Your task to perform on an android device: turn off translation in the chrome app Image 0: 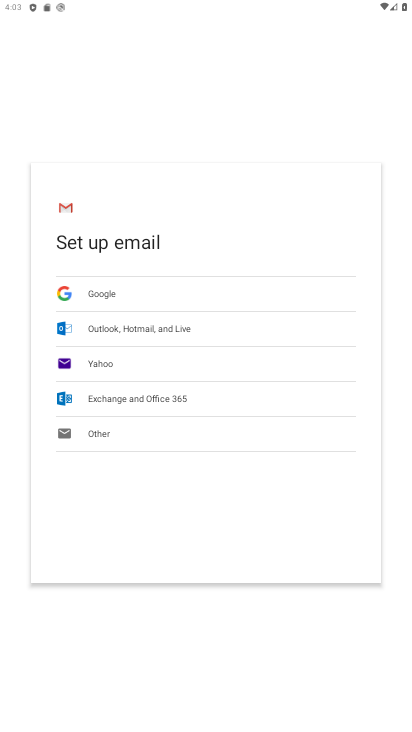
Step 0: press home button
Your task to perform on an android device: turn off translation in the chrome app Image 1: 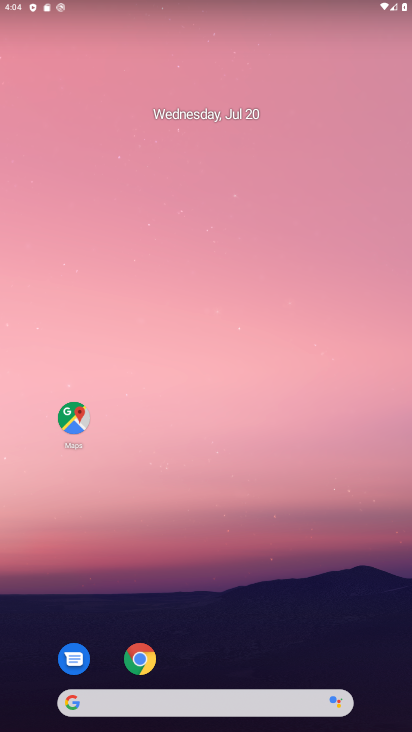
Step 1: drag from (314, 712) to (297, 85)
Your task to perform on an android device: turn off translation in the chrome app Image 2: 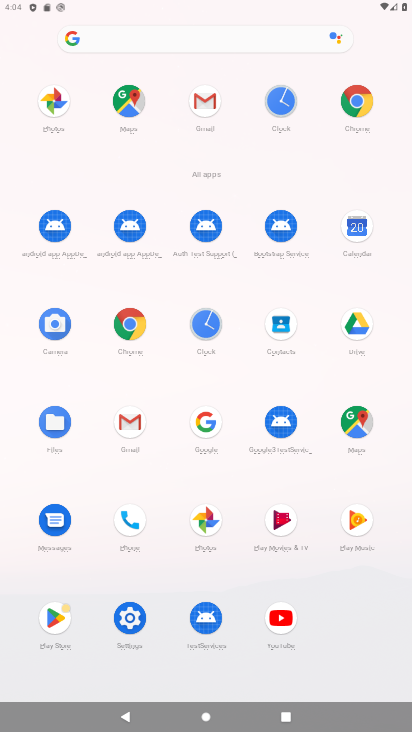
Step 2: click (126, 326)
Your task to perform on an android device: turn off translation in the chrome app Image 3: 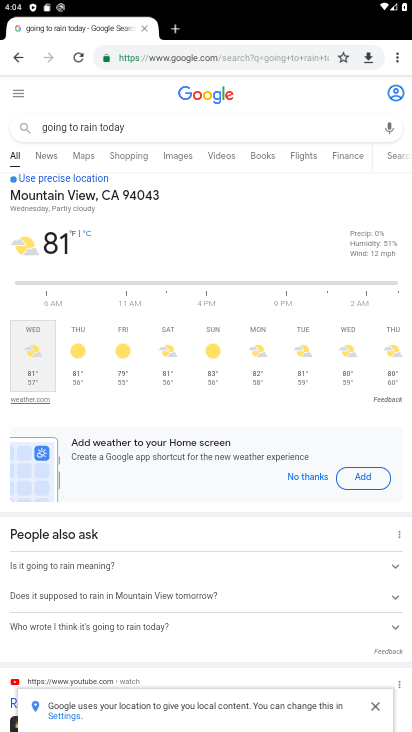
Step 3: drag from (392, 55) to (277, 356)
Your task to perform on an android device: turn off translation in the chrome app Image 4: 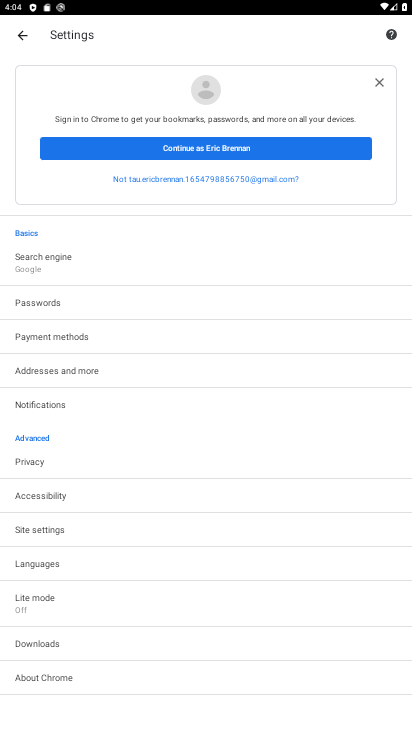
Step 4: click (70, 529)
Your task to perform on an android device: turn off translation in the chrome app Image 5: 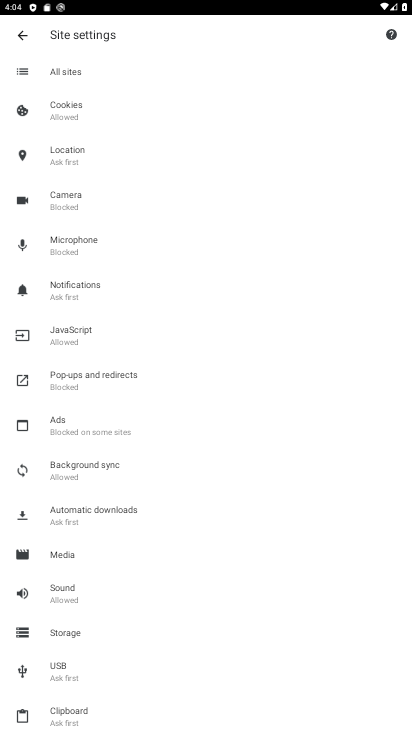
Step 5: press back button
Your task to perform on an android device: turn off translation in the chrome app Image 6: 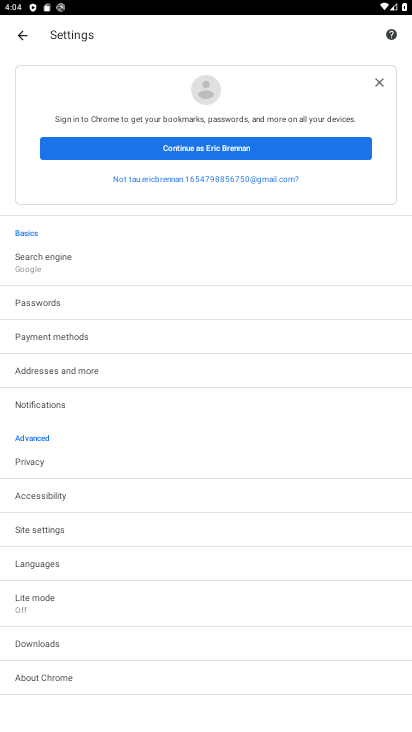
Step 6: click (46, 564)
Your task to perform on an android device: turn off translation in the chrome app Image 7: 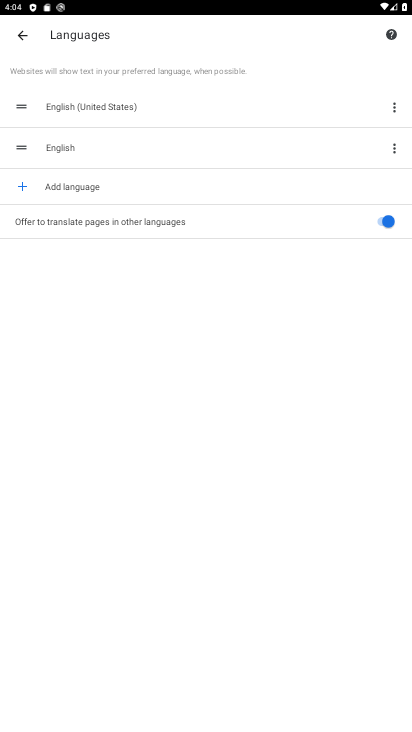
Step 7: click (378, 219)
Your task to perform on an android device: turn off translation in the chrome app Image 8: 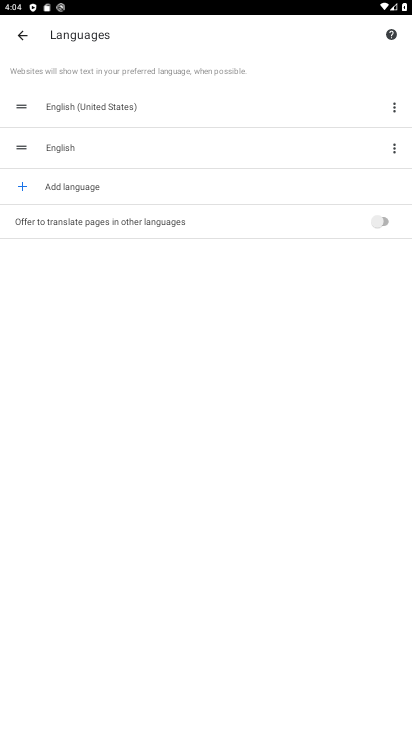
Step 8: task complete